Your task to perform on an android device: change timer sound Image 0: 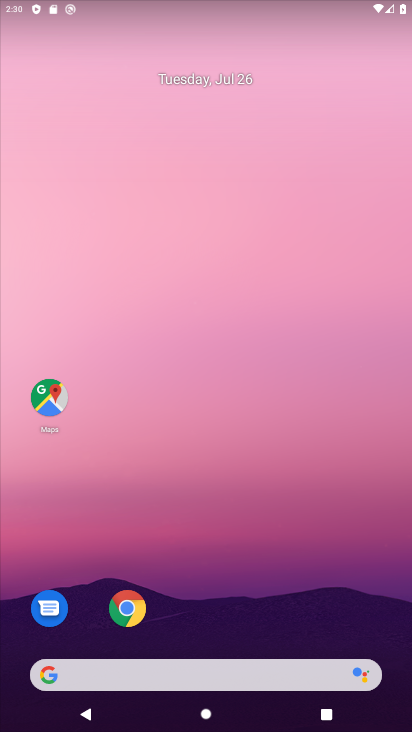
Step 0: drag from (253, 593) to (205, 75)
Your task to perform on an android device: change timer sound Image 1: 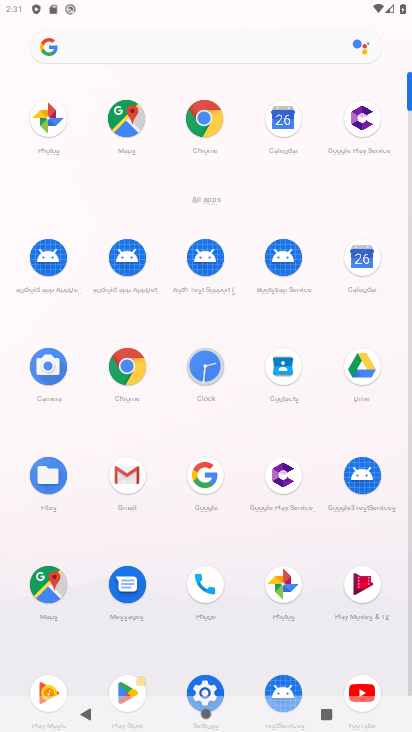
Step 1: click (200, 682)
Your task to perform on an android device: change timer sound Image 2: 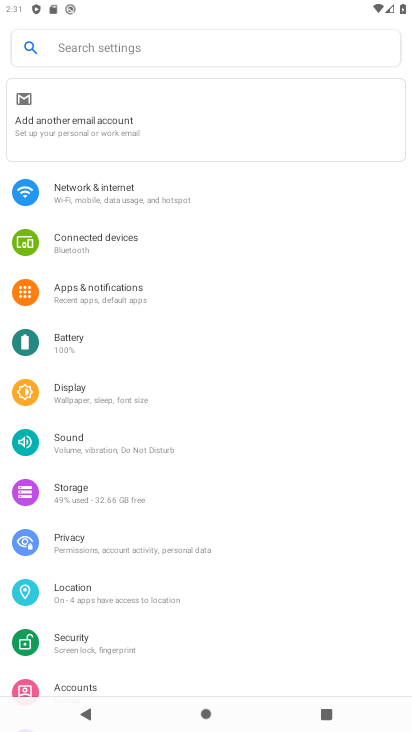
Step 2: click (162, 447)
Your task to perform on an android device: change timer sound Image 3: 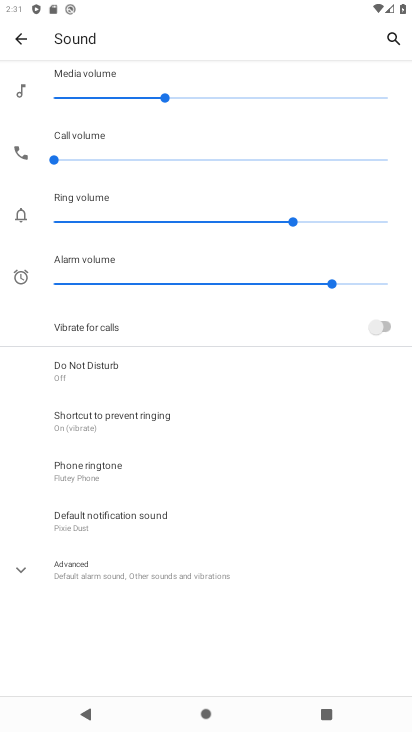
Step 3: task complete